Your task to perform on an android device: Show me the alarms in the clock app Image 0: 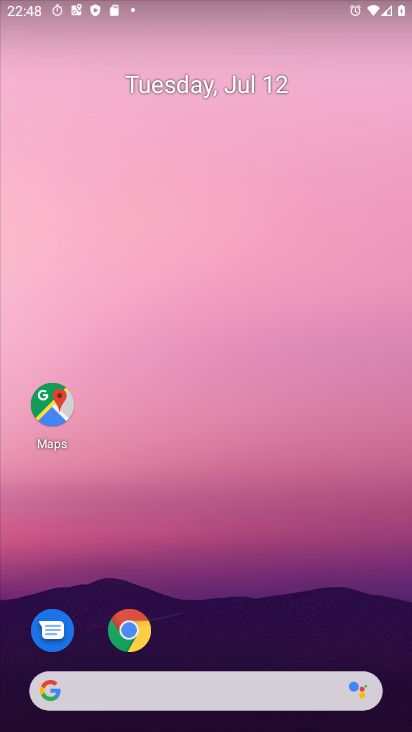
Step 0: drag from (228, 602) to (237, 15)
Your task to perform on an android device: Show me the alarms in the clock app Image 1: 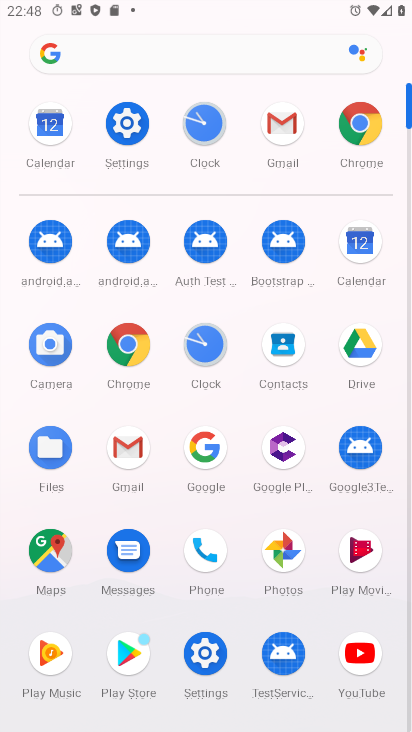
Step 1: click (207, 347)
Your task to perform on an android device: Show me the alarms in the clock app Image 2: 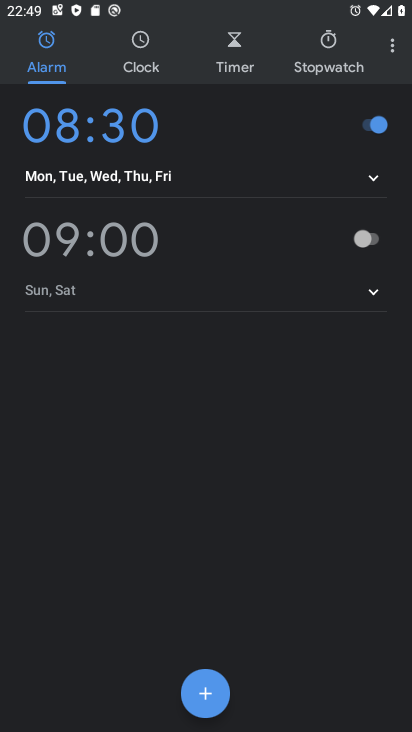
Step 2: task complete